Your task to perform on an android device: Open notification settings Image 0: 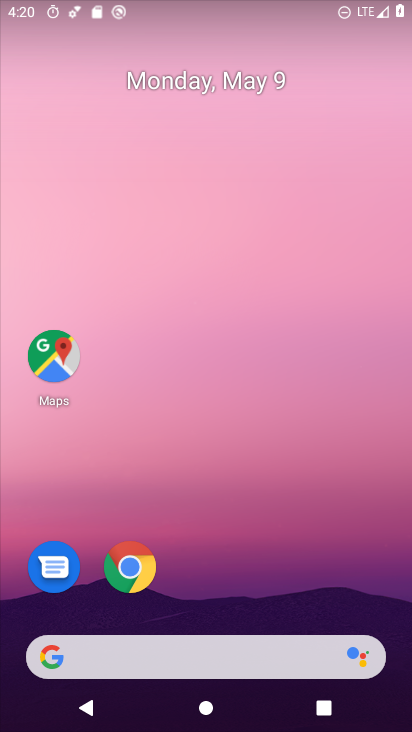
Step 0: drag from (247, 591) to (234, 160)
Your task to perform on an android device: Open notification settings Image 1: 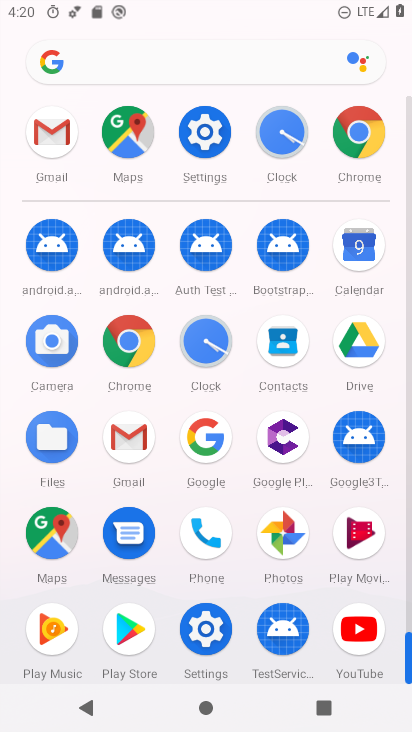
Step 1: click (198, 130)
Your task to perform on an android device: Open notification settings Image 2: 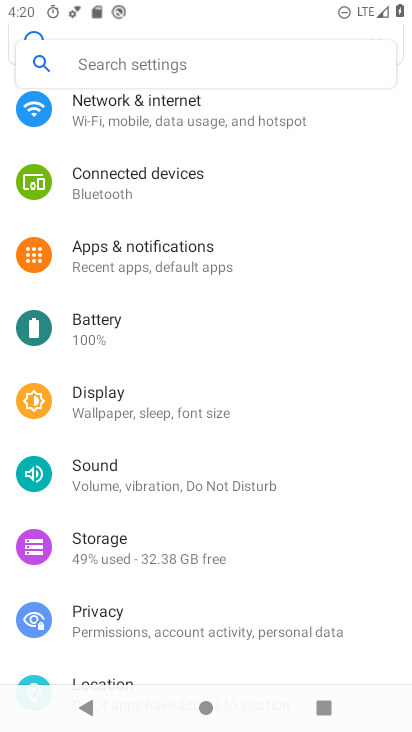
Step 2: click (166, 269)
Your task to perform on an android device: Open notification settings Image 3: 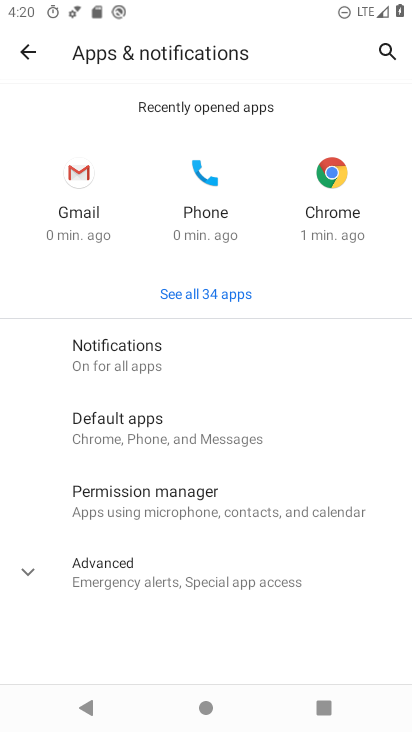
Step 3: task complete